Your task to perform on an android device: turn off notifications in google photos Image 0: 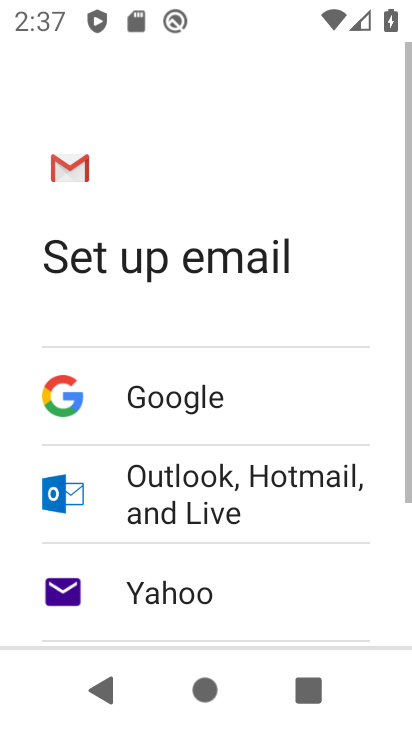
Step 0: press home button
Your task to perform on an android device: turn off notifications in google photos Image 1: 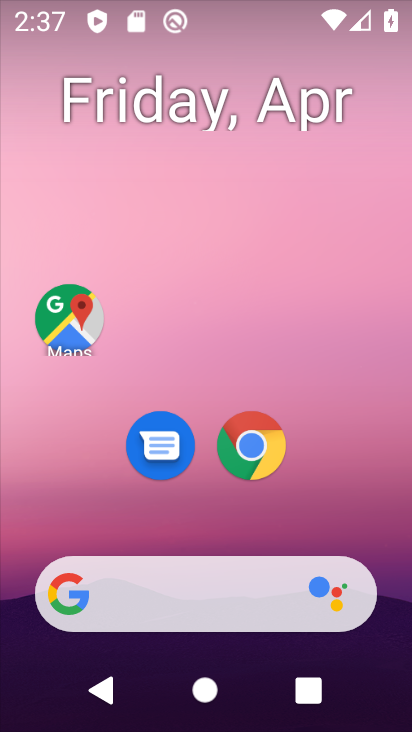
Step 1: drag from (349, 505) to (295, 128)
Your task to perform on an android device: turn off notifications in google photos Image 2: 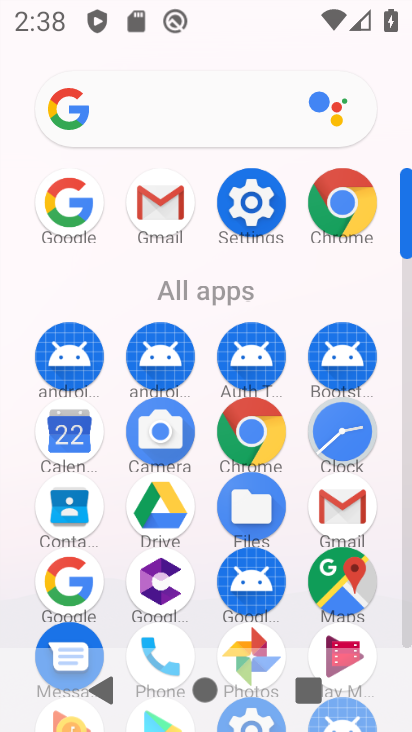
Step 2: drag from (295, 313) to (341, 158)
Your task to perform on an android device: turn off notifications in google photos Image 3: 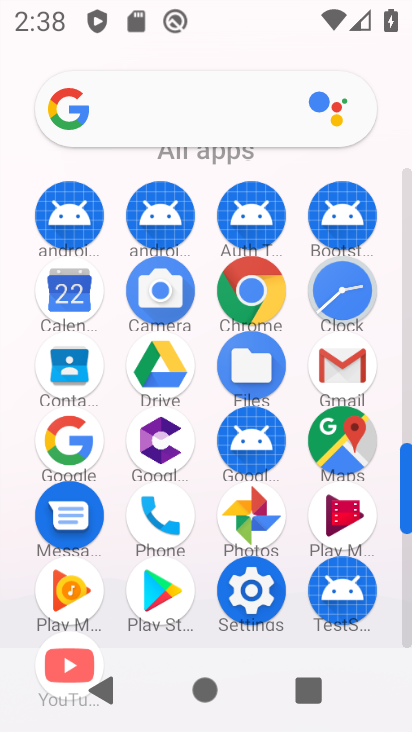
Step 3: click (253, 514)
Your task to perform on an android device: turn off notifications in google photos Image 4: 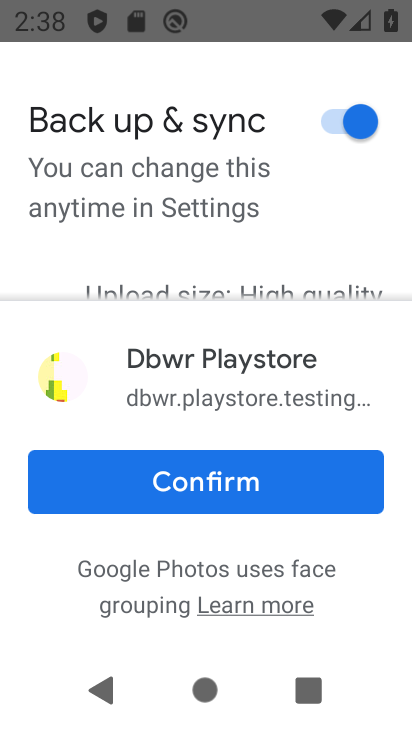
Step 4: click (199, 476)
Your task to perform on an android device: turn off notifications in google photos Image 5: 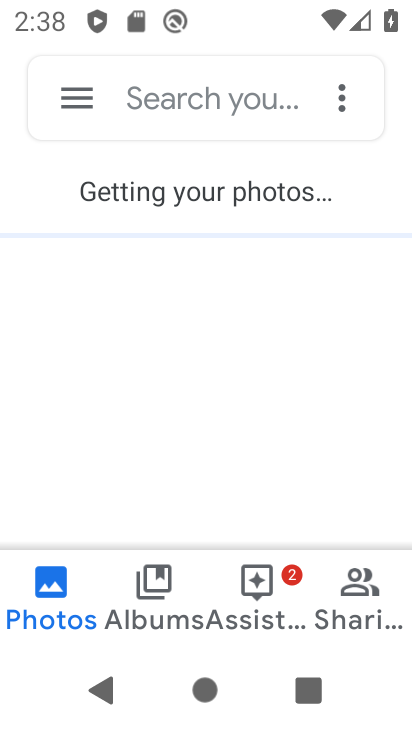
Step 5: click (80, 99)
Your task to perform on an android device: turn off notifications in google photos Image 6: 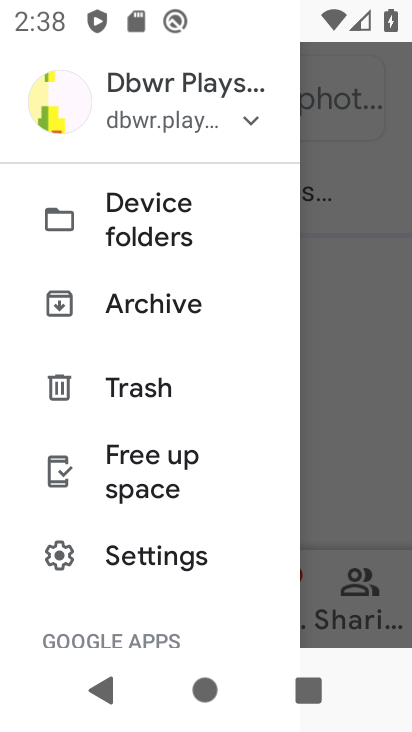
Step 6: click (149, 551)
Your task to perform on an android device: turn off notifications in google photos Image 7: 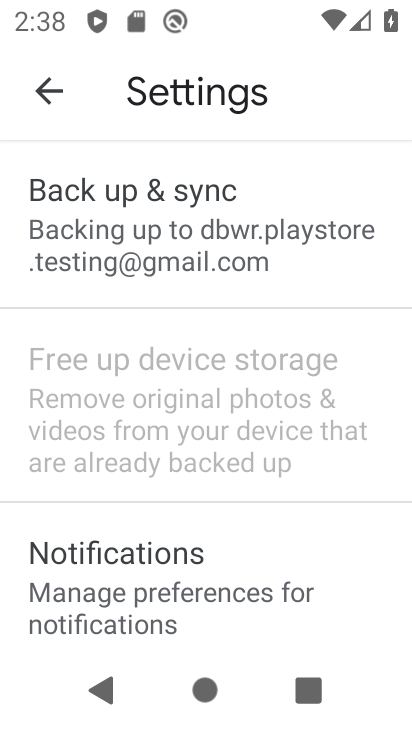
Step 7: click (149, 556)
Your task to perform on an android device: turn off notifications in google photos Image 8: 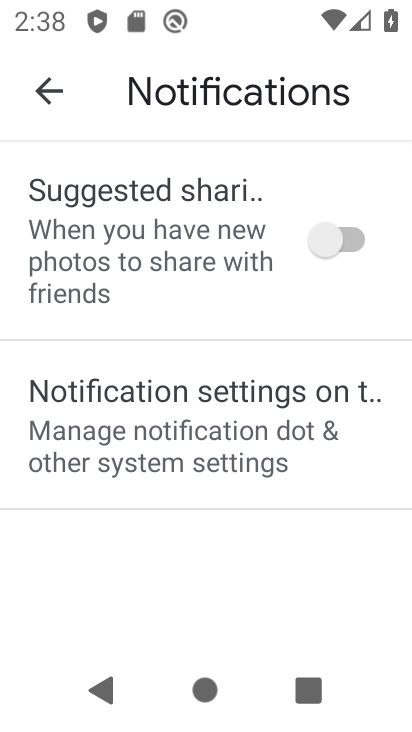
Step 8: click (185, 388)
Your task to perform on an android device: turn off notifications in google photos Image 9: 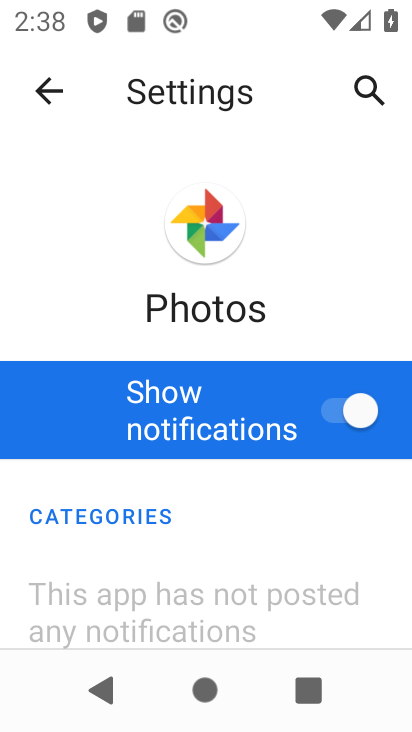
Step 9: click (363, 414)
Your task to perform on an android device: turn off notifications in google photos Image 10: 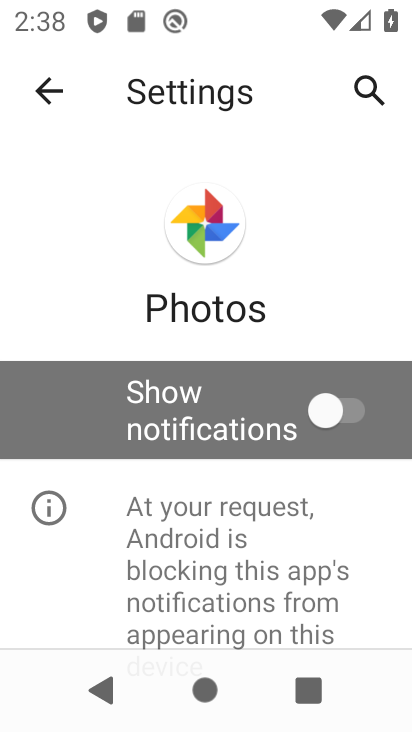
Step 10: task complete